Your task to perform on an android device: Open eBay Image 0: 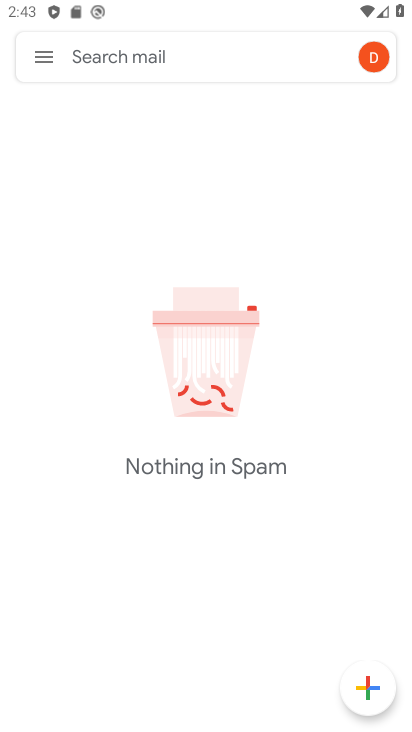
Step 0: press home button
Your task to perform on an android device: Open eBay Image 1: 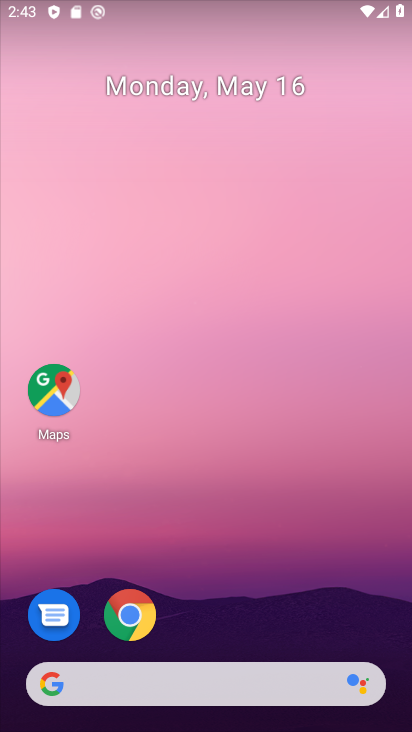
Step 1: click (128, 620)
Your task to perform on an android device: Open eBay Image 2: 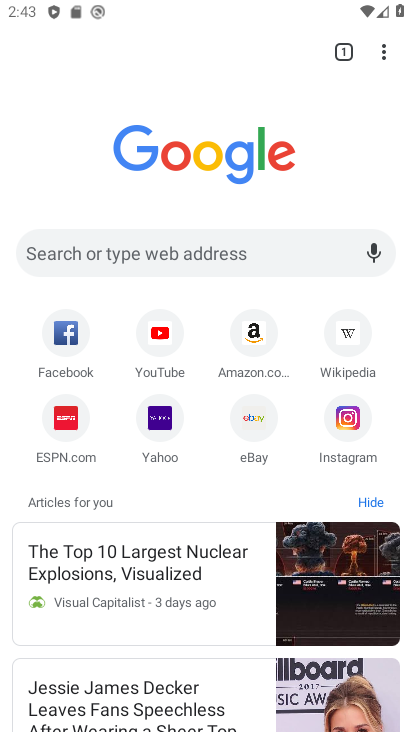
Step 2: click (253, 424)
Your task to perform on an android device: Open eBay Image 3: 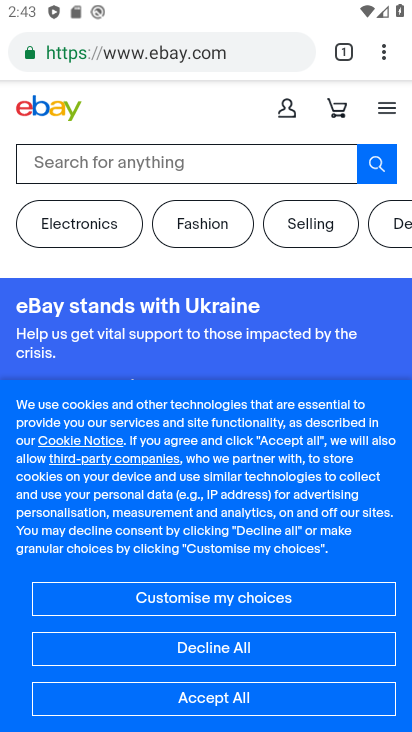
Step 3: task complete